Your task to perform on an android device: Open eBay Image 0: 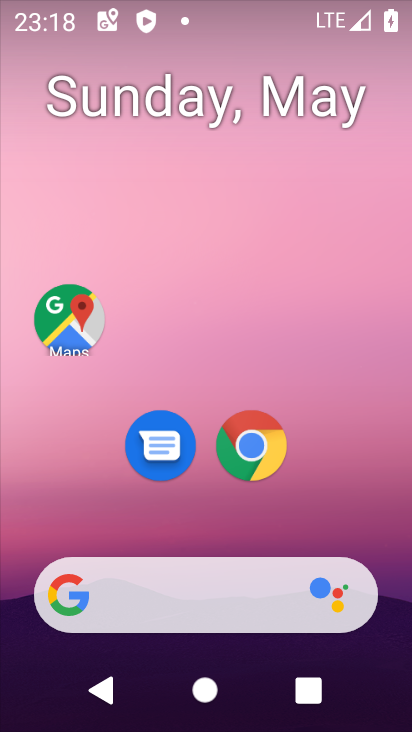
Step 0: click (126, 592)
Your task to perform on an android device: Open eBay Image 1: 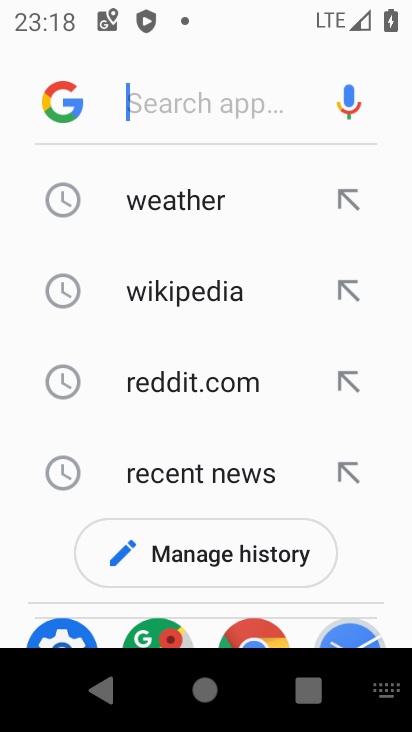
Step 1: type "ebay"
Your task to perform on an android device: Open eBay Image 2: 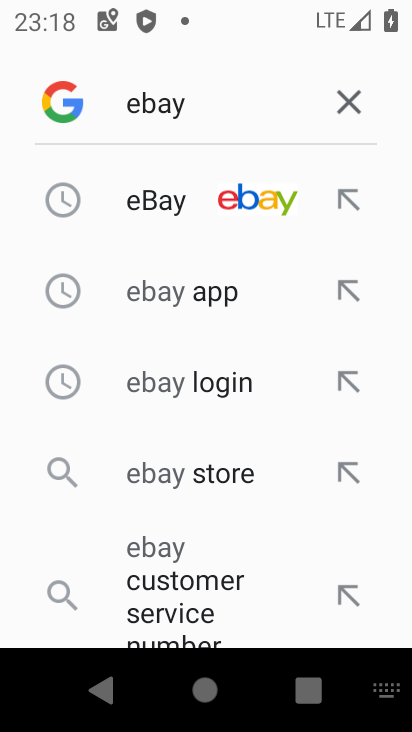
Step 2: click (203, 207)
Your task to perform on an android device: Open eBay Image 3: 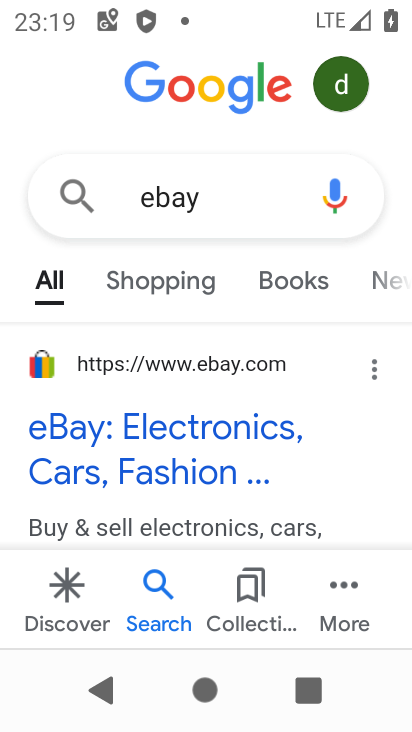
Step 3: click (145, 428)
Your task to perform on an android device: Open eBay Image 4: 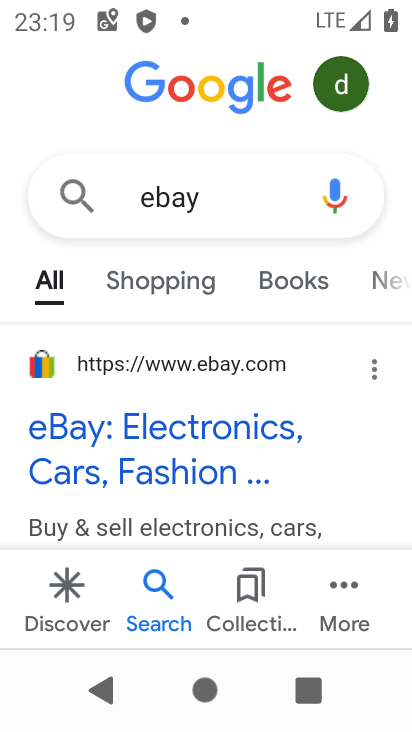
Step 4: click (145, 428)
Your task to perform on an android device: Open eBay Image 5: 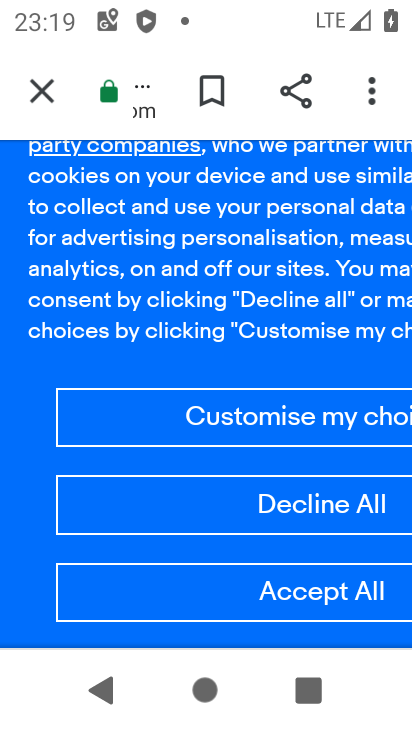
Step 5: click (303, 426)
Your task to perform on an android device: Open eBay Image 6: 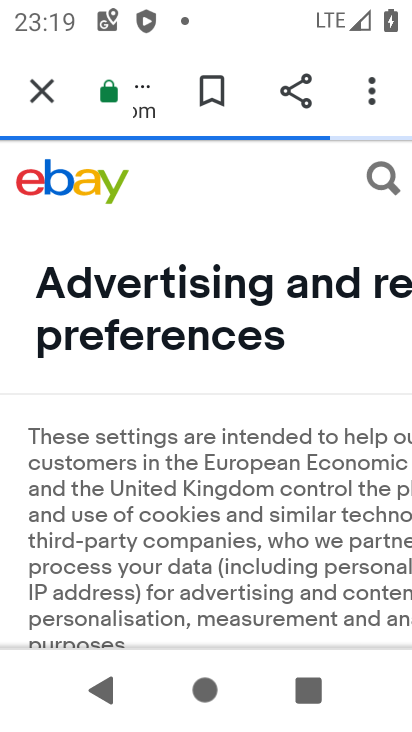
Step 6: task complete